Your task to perform on an android device: Install the Yahoo app Image 0: 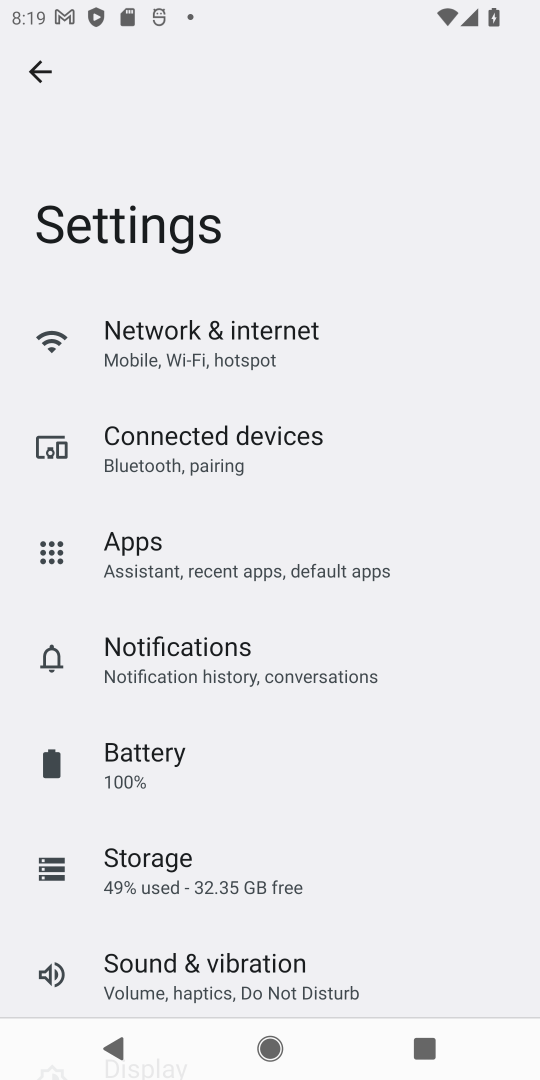
Step 0: press home button
Your task to perform on an android device: Install the Yahoo app Image 1: 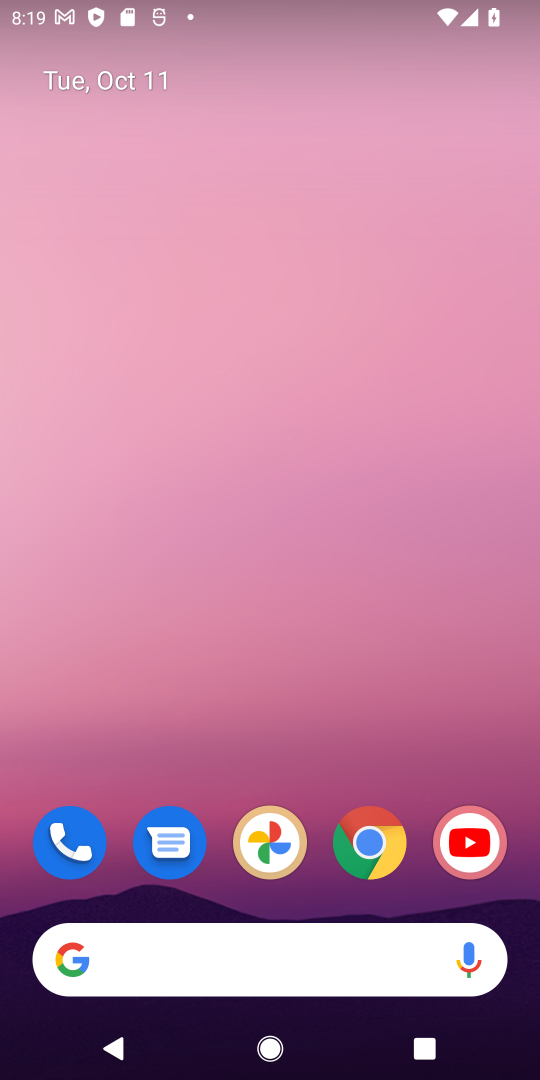
Step 1: drag from (235, 589) to (241, 146)
Your task to perform on an android device: Install the Yahoo app Image 2: 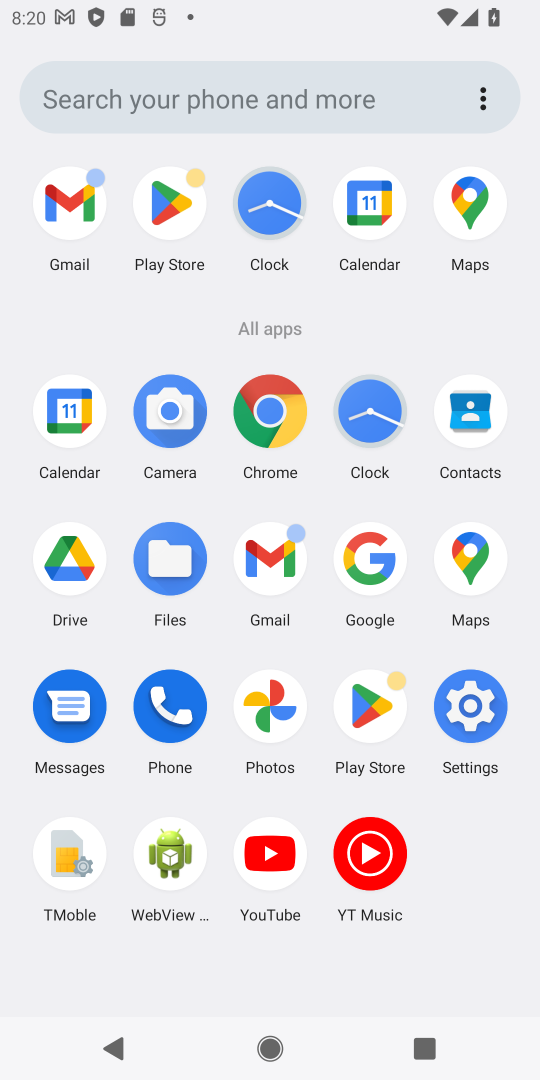
Step 2: click (362, 709)
Your task to perform on an android device: Install the Yahoo app Image 3: 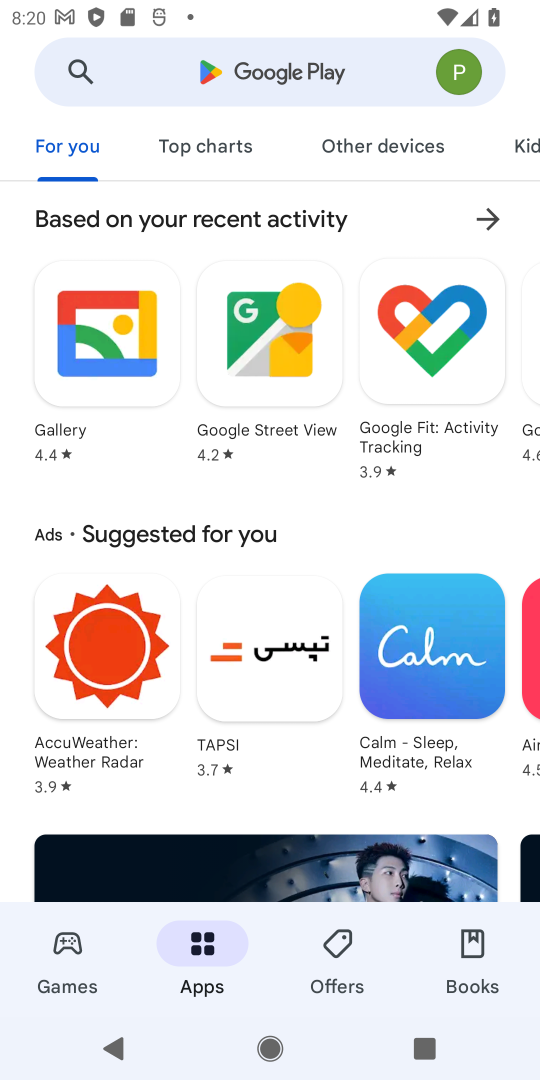
Step 3: click (290, 68)
Your task to perform on an android device: Install the Yahoo app Image 4: 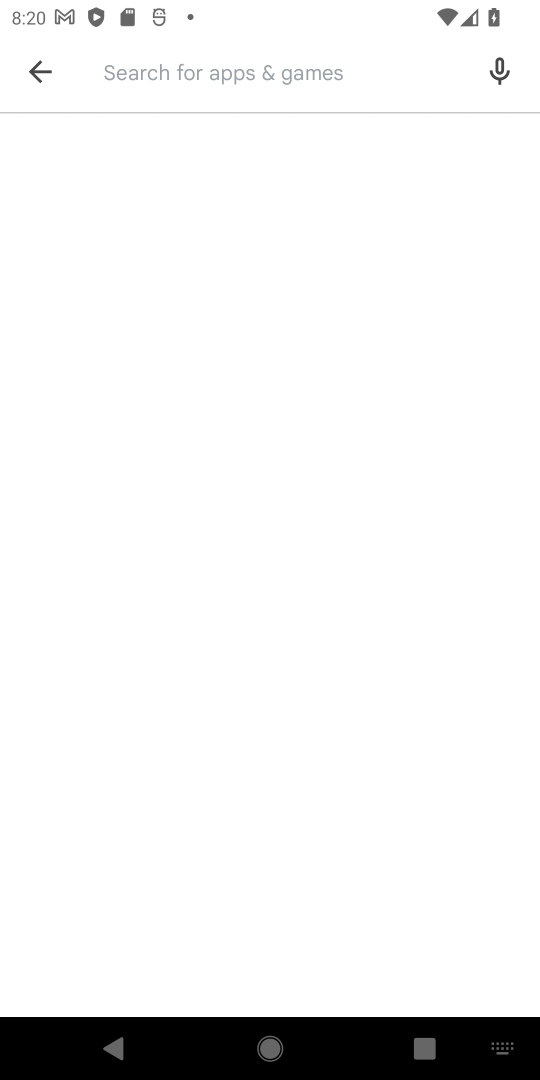
Step 4: type "yahoo app"
Your task to perform on an android device: Install the Yahoo app Image 5: 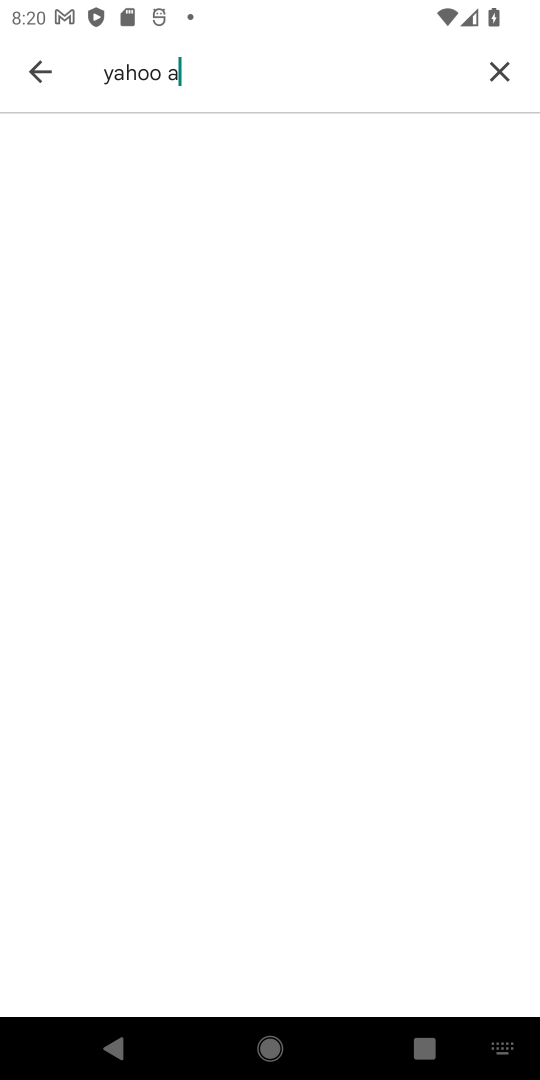
Step 5: type ""
Your task to perform on an android device: Install the Yahoo app Image 6: 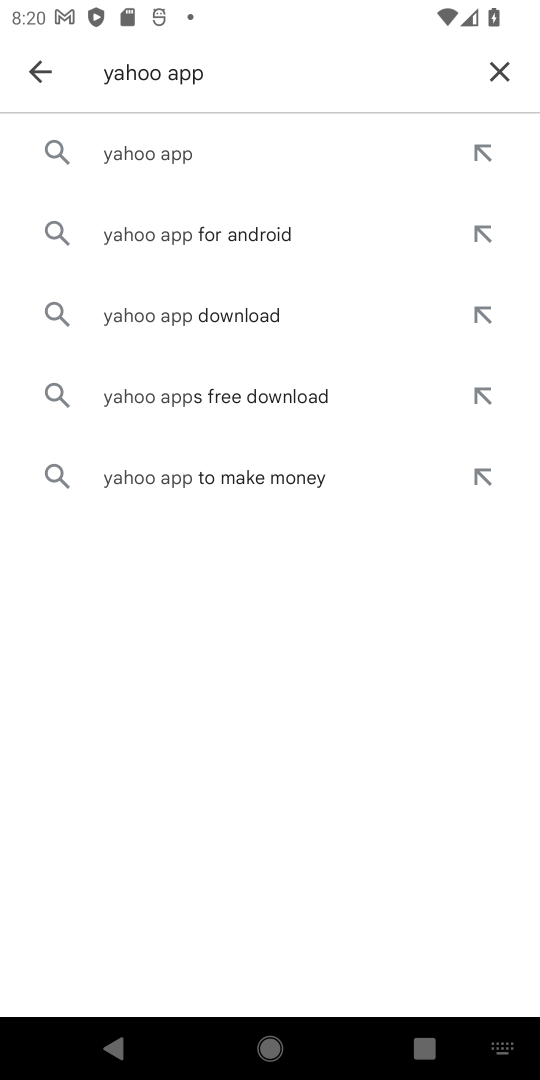
Step 6: click (161, 165)
Your task to perform on an android device: Install the Yahoo app Image 7: 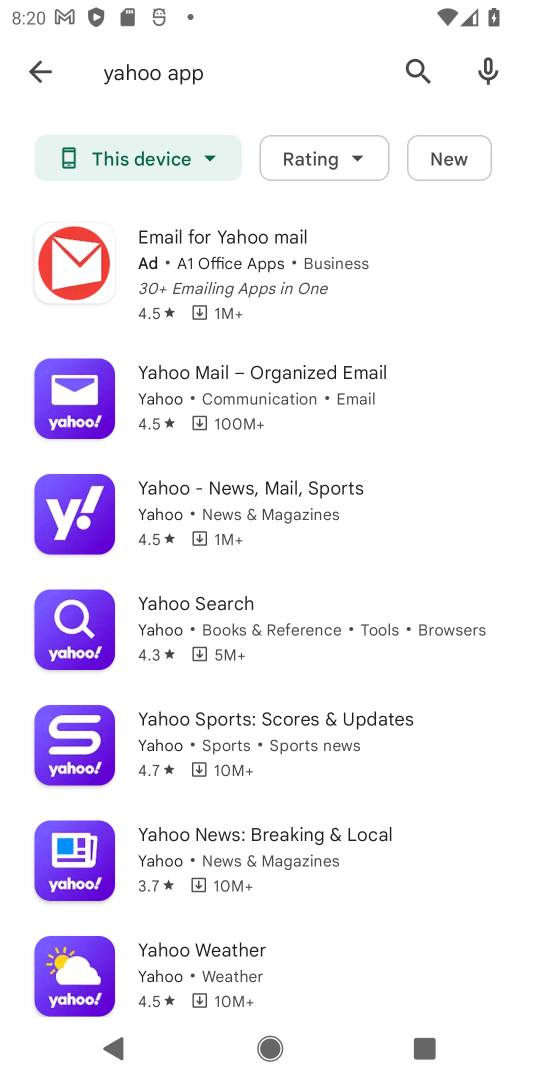
Step 7: click (82, 524)
Your task to perform on an android device: Install the Yahoo app Image 8: 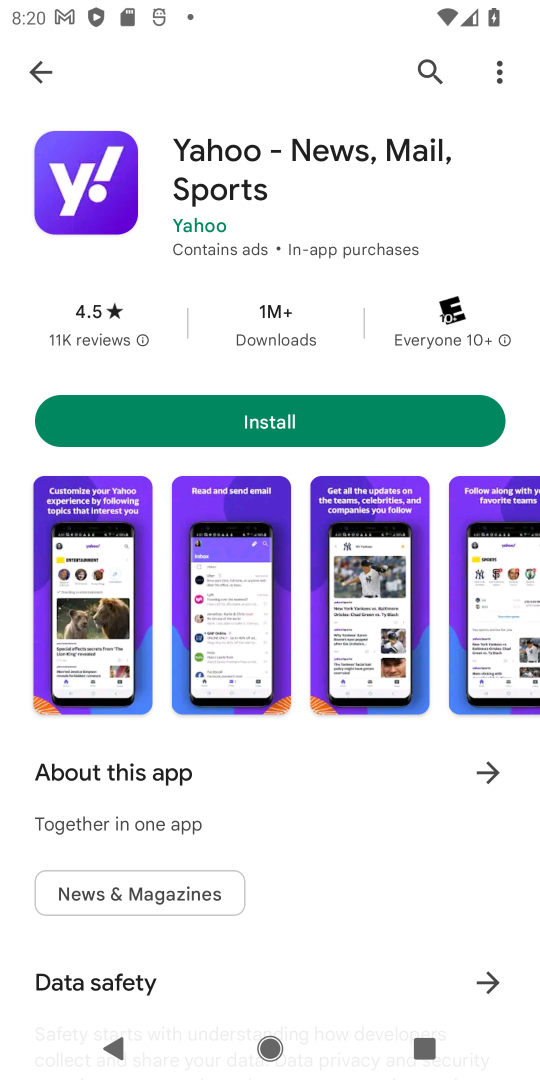
Step 8: click (294, 433)
Your task to perform on an android device: Install the Yahoo app Image 9: 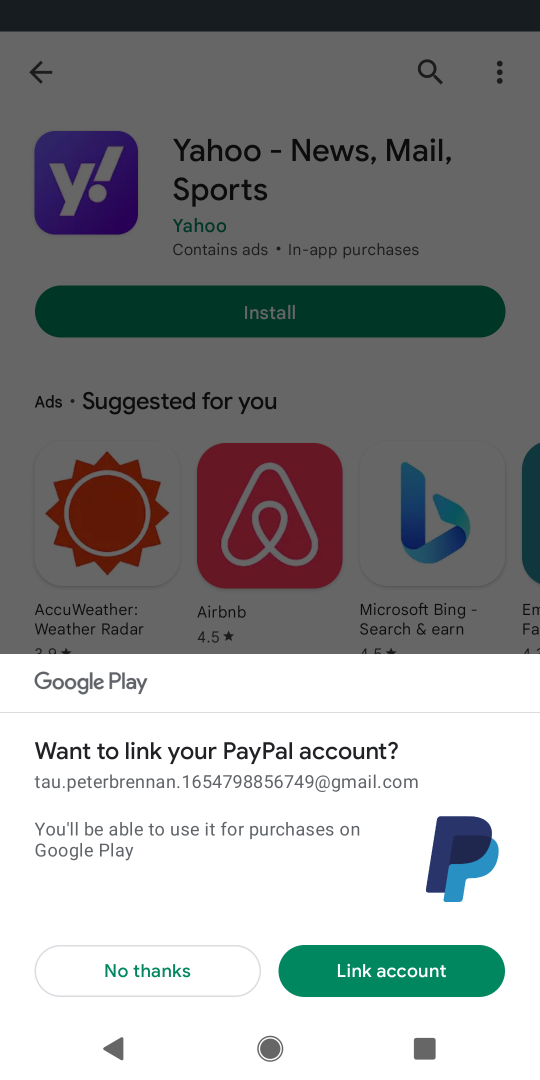
Step 9: click (192, 973)
Your task to perform on an android device: Install the Yahoo app Image 10: 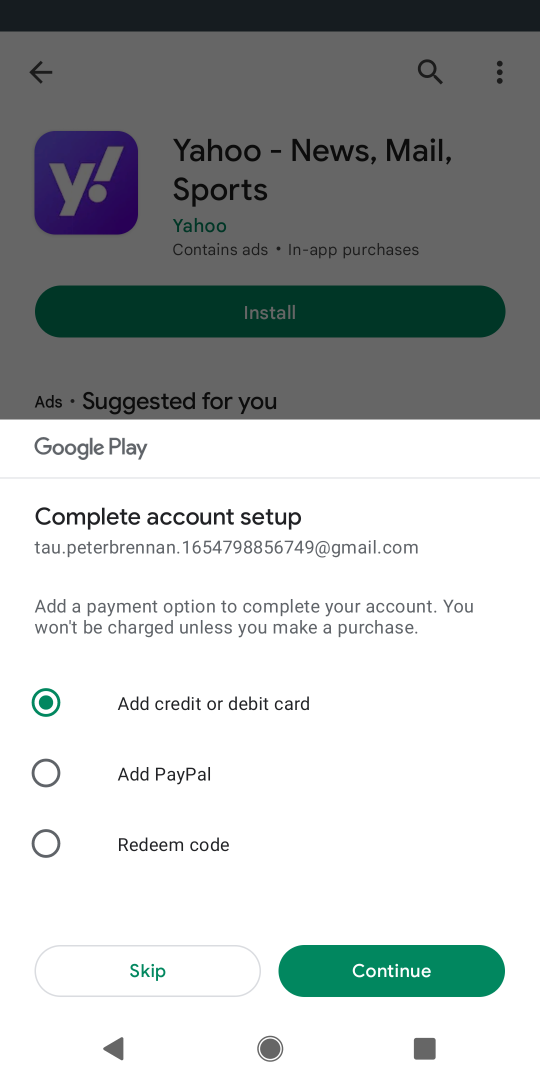
Step 10: click (153, 962)
Your task to perform on an android device: Install the Yahoo app Image 11: 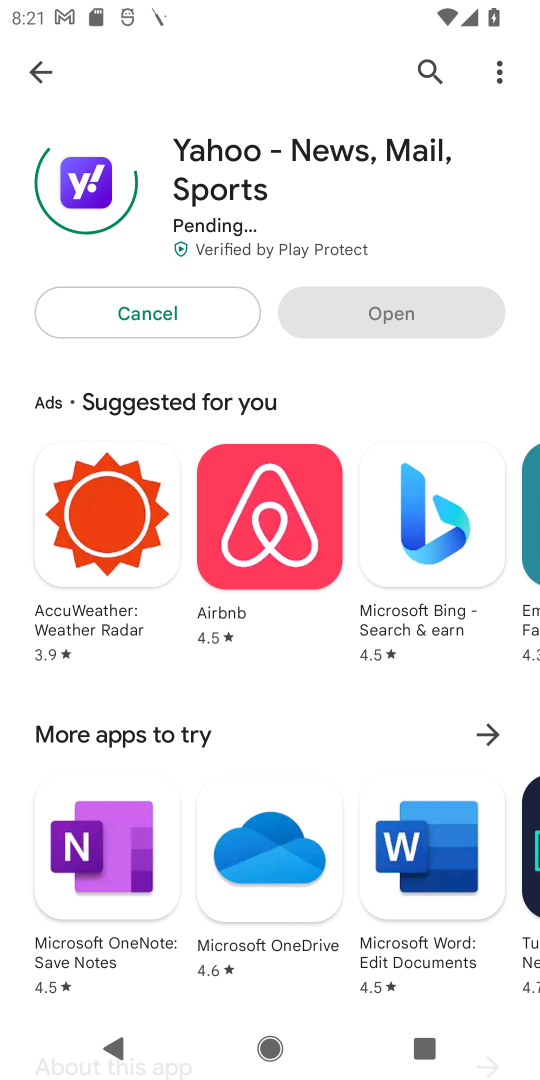
Step 11: click (275, 317)
Your task to perform on an android device: Install the Yahoo app Image 12: 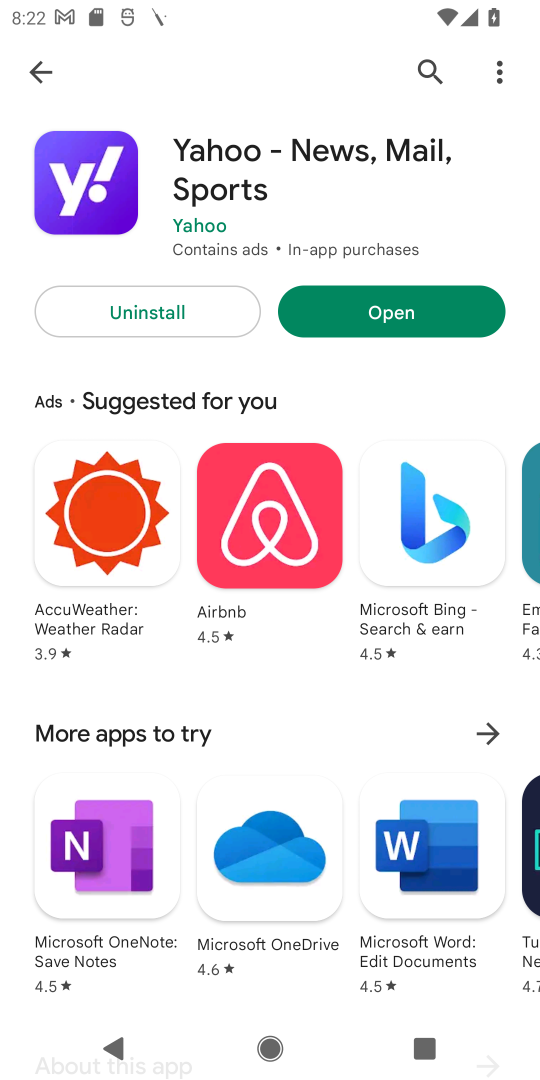
Step 12: click (443, 313)
Your task to perform on an android device: Install the Yahoo app Image 13: 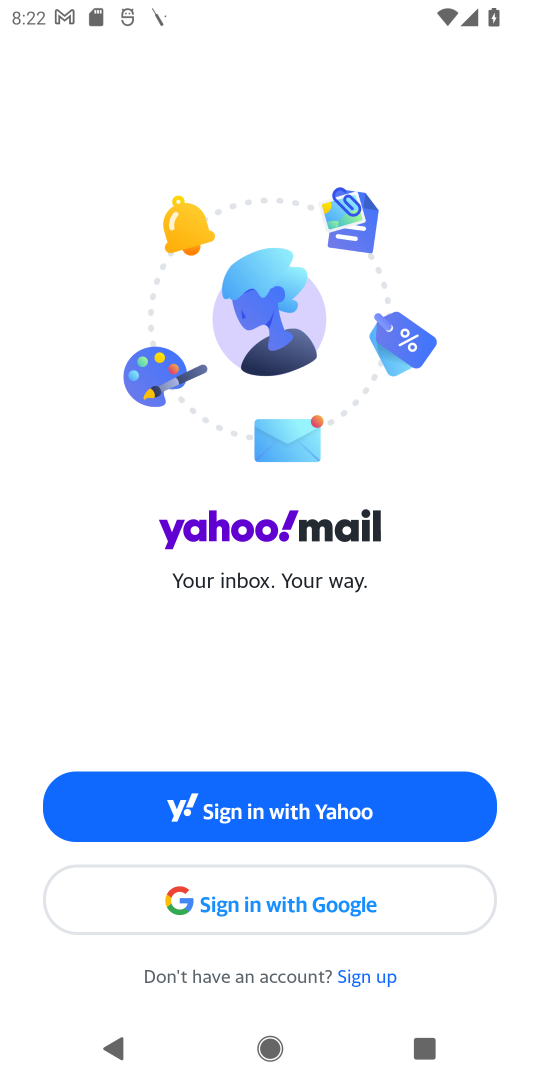
Step 13: task complete